Your task to perform on an android device: Open Google Maps Image 0: 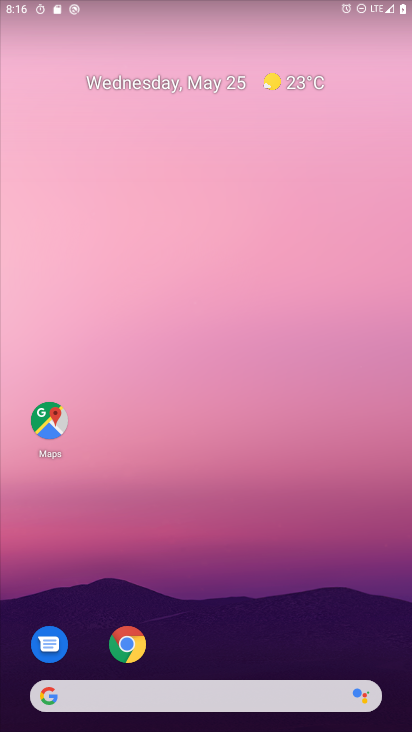
Step 0: drag from (362, 641) to (323, 38)
Your task to perform on an android device: Open Google Maps Image 1: 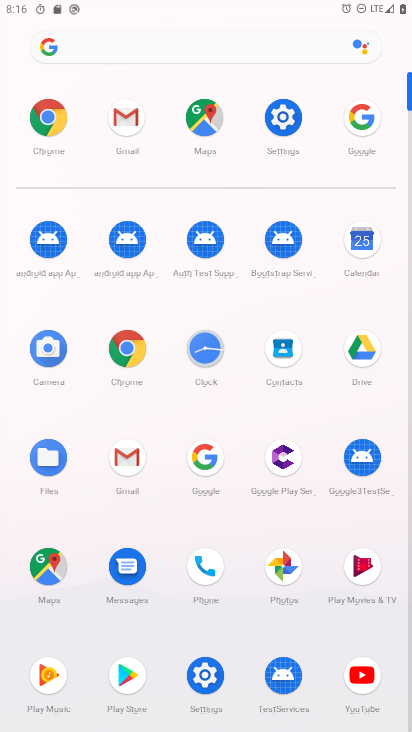
Step 1: click (46, 569)
Your task to perform on an android device: Open Google Maps Image 2: 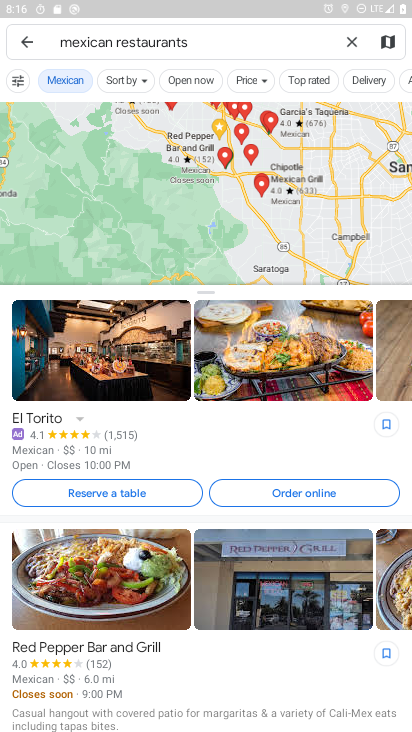
Step 2: click (351, 37)
Your task to perform on an android device: Open Google Maps Image 3: 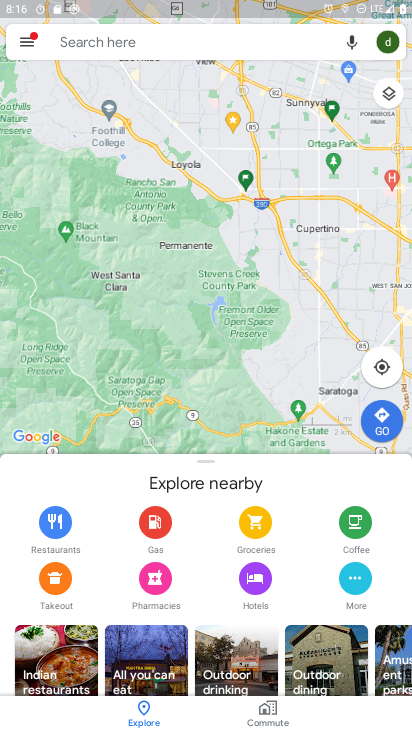
Step 3: task complete